Your task to perform on an android device: Go to Reddit.com Image 0: 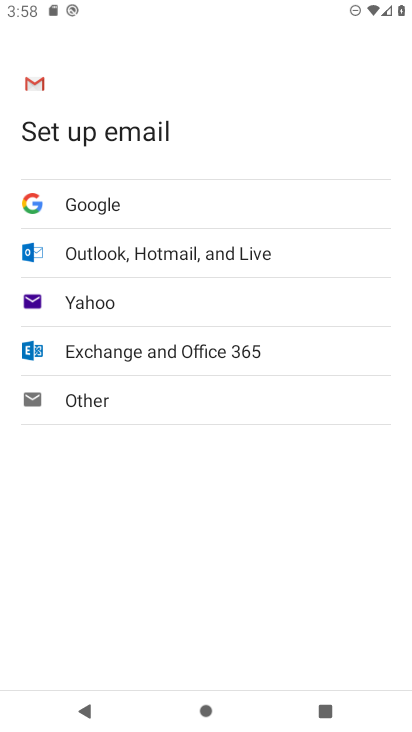
Step 0: press back button
Your task to perform on an android device: Go to Reddit.com Image 1: 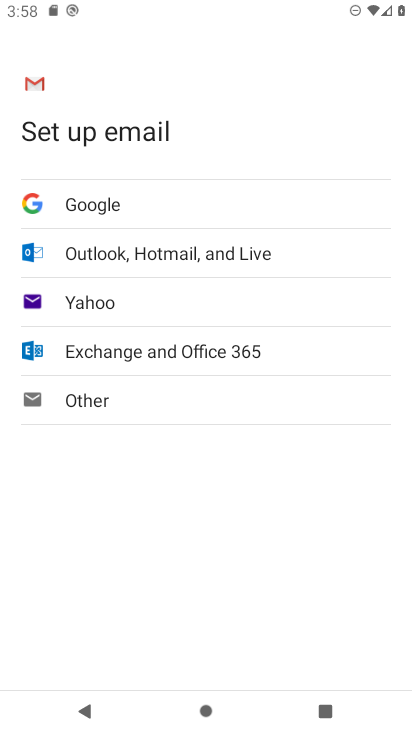
Step 1: press back button
Your task to perform on an android device: Go to Reddit.com Image 2: 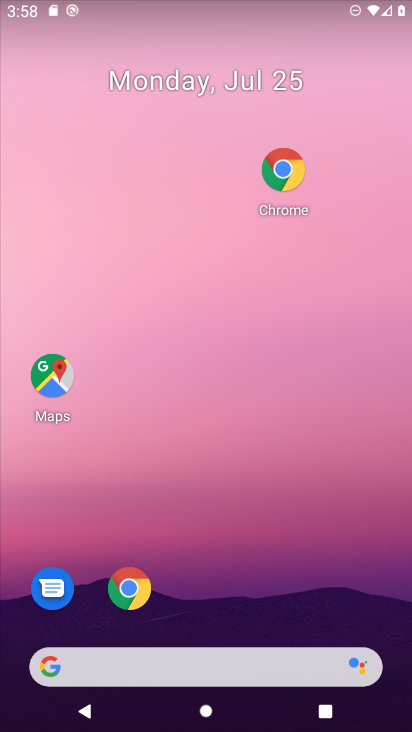
Step 2: drag from (299, 620) to (215, 71)
Your task to perform on an android device: Go to Reddit.com Image 3: 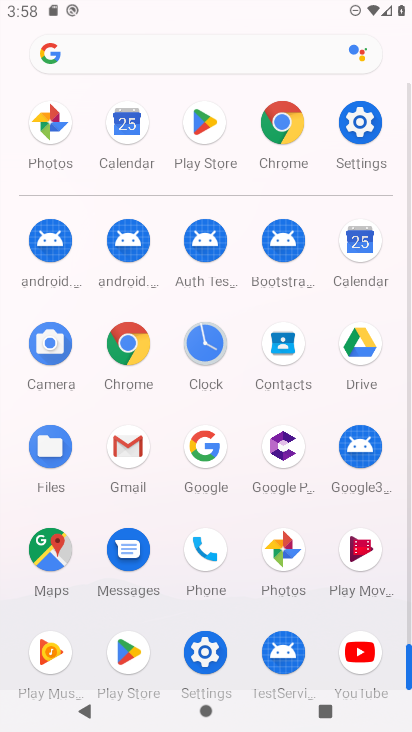
Step 3: drag from (184, 513) to (180, 12)
Your task to perform on an android device: Go to Reddit.com Image 4: 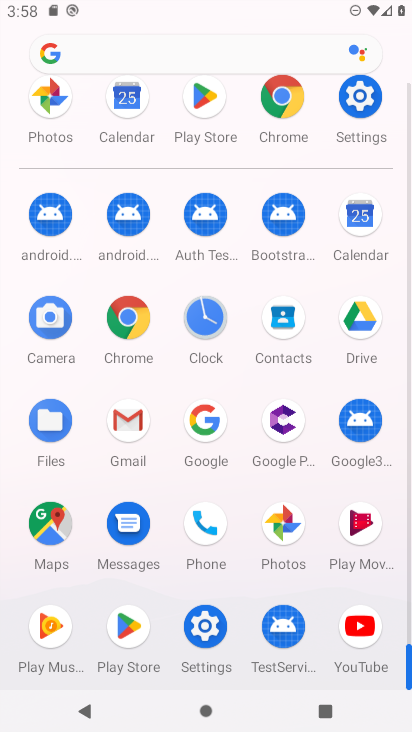
Step 4: click (286, 111)
Your task to perform on an android device: Go to Reddit.com Image 5: 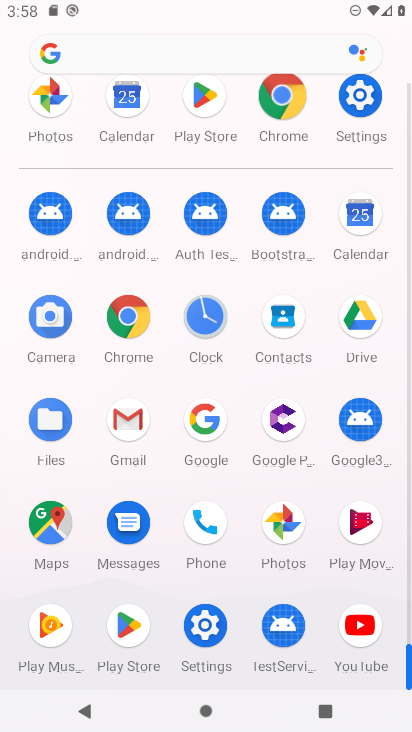
Step 5: click (286, 136)
Your task to perform on an android device: Go to Reddit.com Image 6: 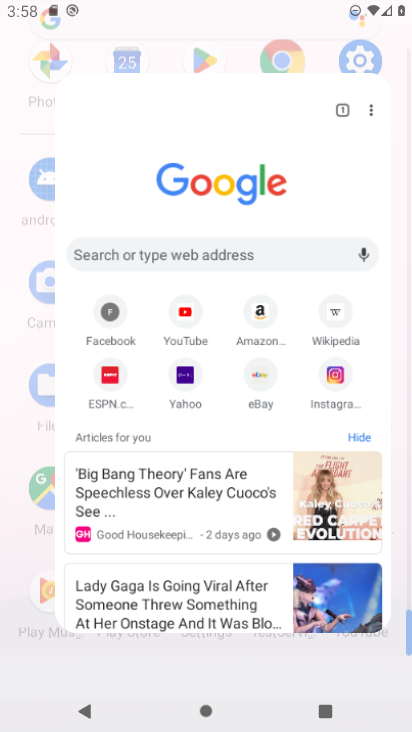
Step 6: click (287, 136)
Your task to perform on an android device: Go to Reddit.com Image 7: 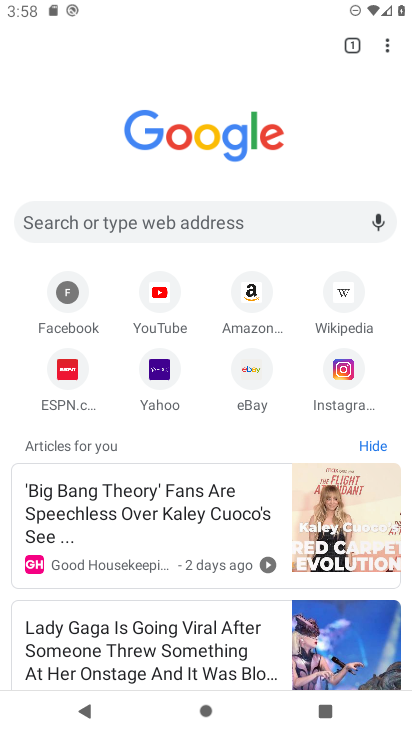
Step 7: click (56, 208)
Your task to perform on an android device: Go to Reddit.com Image 8: 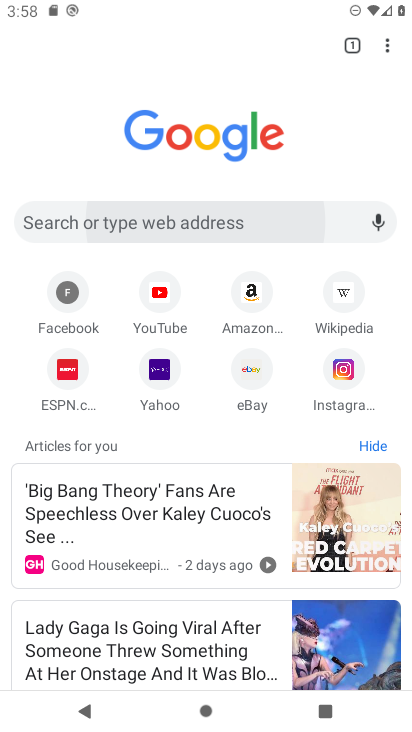
Step 8: click (62, 212)
Your task to perform on an android device: Go to Reddit.com Image 9: 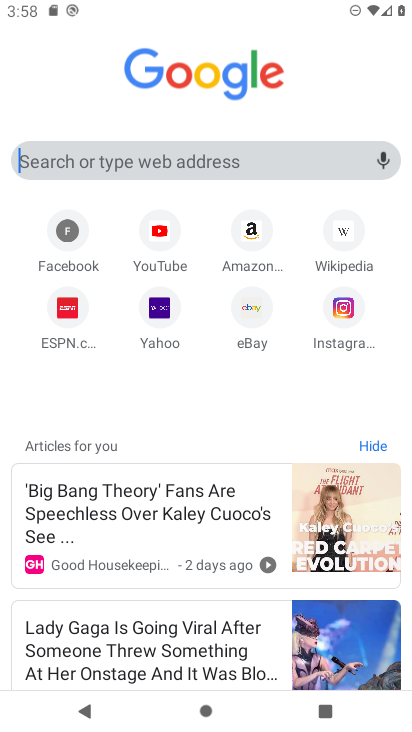
Step 9: click (64, 213)
Your task to perform on an android device: Go to Reddit.com Image 10: 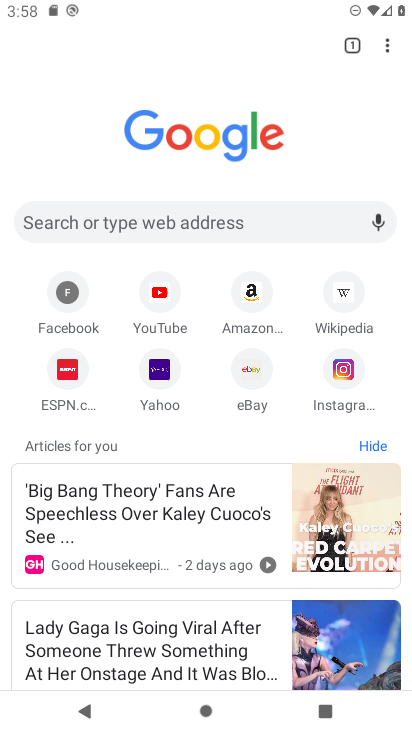
Step 10: type "reddit.com"
Your task to perform on an android device: Go to Reddit.com Image 11: 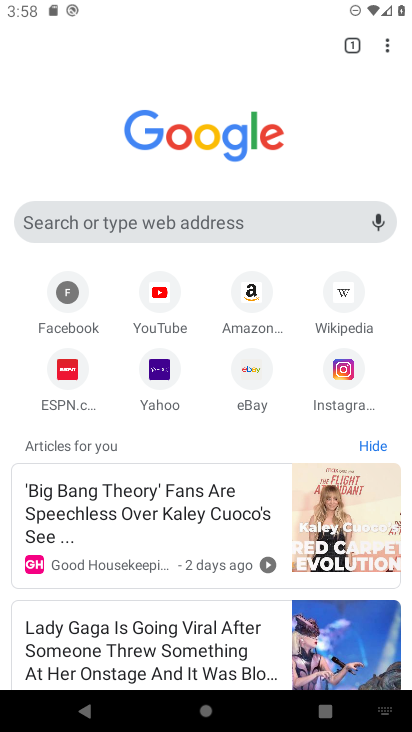
Step 11: click (88, 218)
Your task to perform on an android device: Go to Reddit.com Image 12: 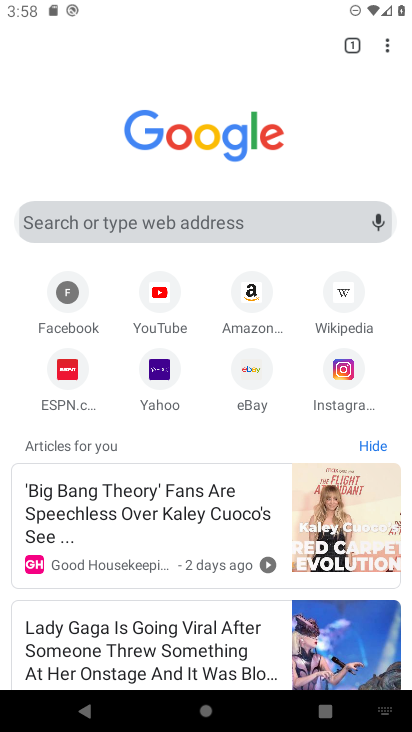
Step 12: click (95, 229)
Your task to perform on an android device: Go to Reddit.com Image 13: 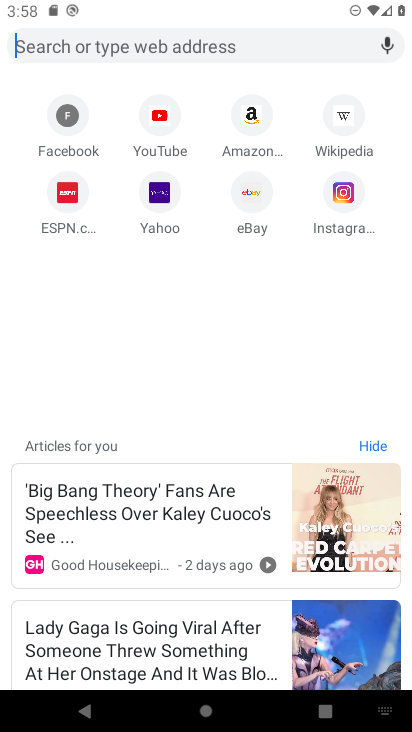
Step 13: click (98, 231)
Your task to perform on an android device: Go to Reddit.com Image 14: 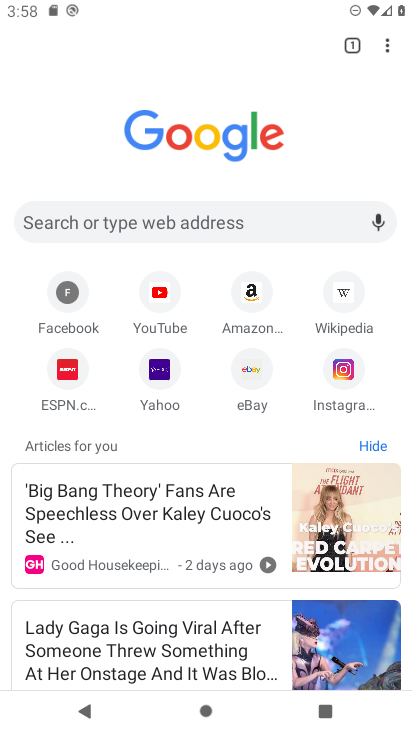
Step 14: click (65, 226)
Your task to perform on an android device: Go to Reddit.com Image 15: 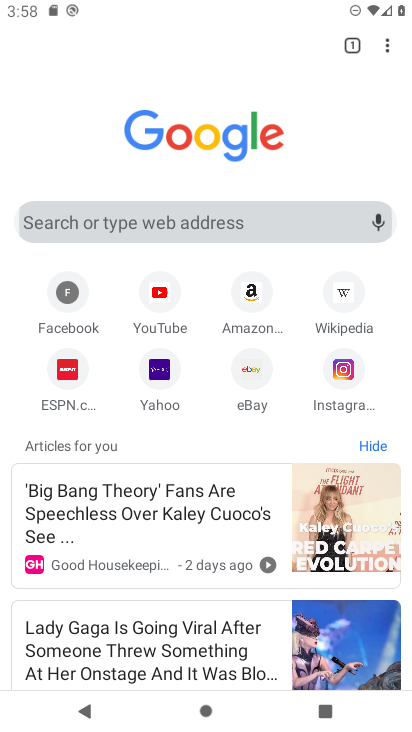
Step 15: click (66, 226)
Your task to perform on an android device: Go to Reddit.com Image 16: 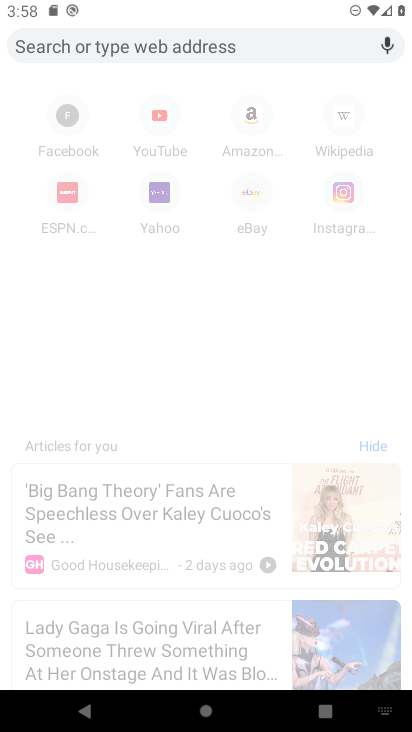
Step 16: type "reddit.vom"
Your task to perform on an android device: Go to Reddit.com Image 17: 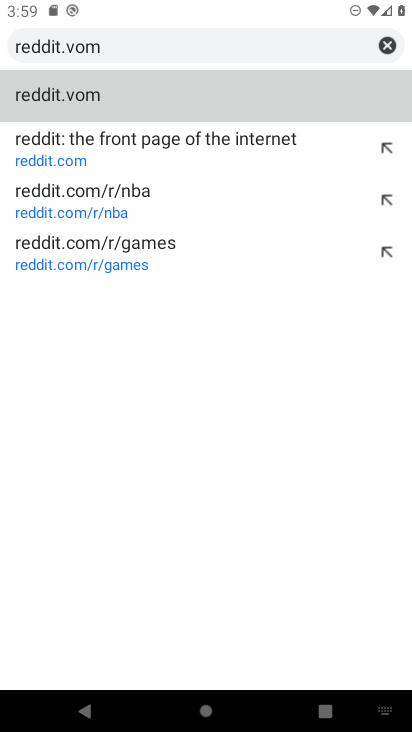
Step 17: task complete